Your task to perform on an android device: Clear the cart on newegg. Image 0: 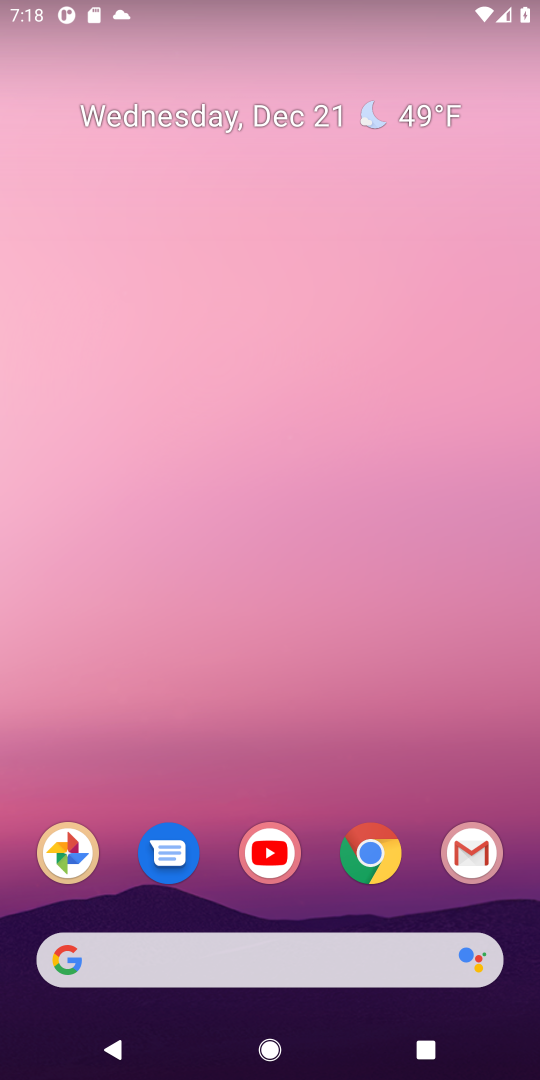
Step 0: click (372, 848)
Your task to perform on an android device: Clear the cart on newegg. Image 1: 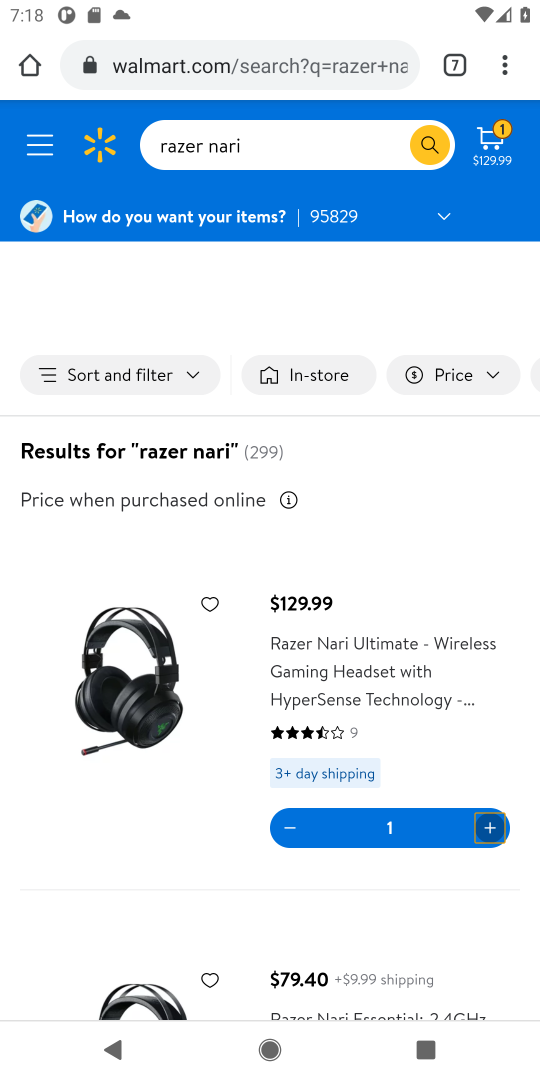
Step 1: click (460, 58)
Your task to perform on an android device: Clear the cart on newegg. Image 2: 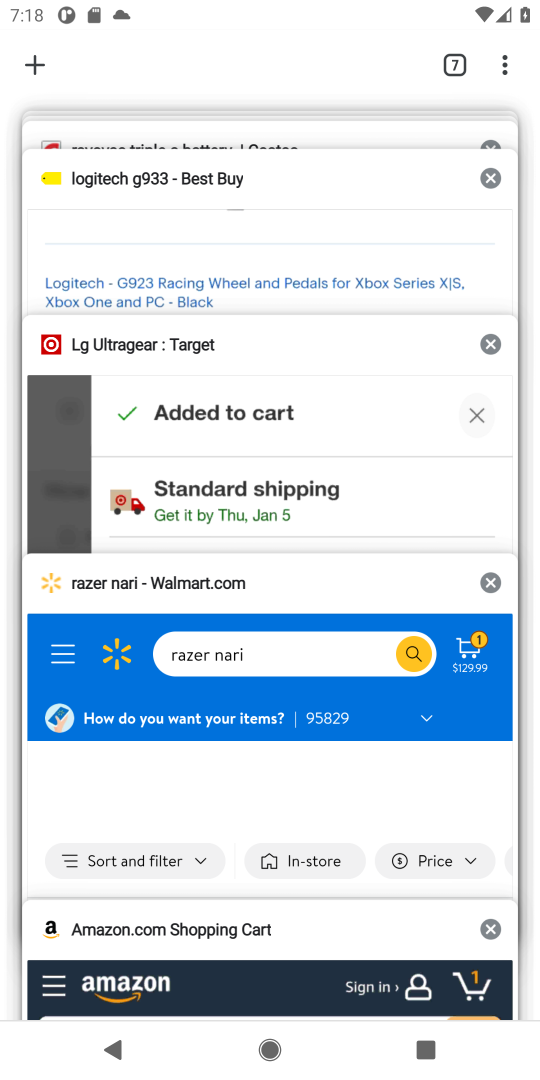
Step 2: drag from (267, 125) to (235, 463)
Your task to perform on an android device: Clear the cart on newegg. Image 3: 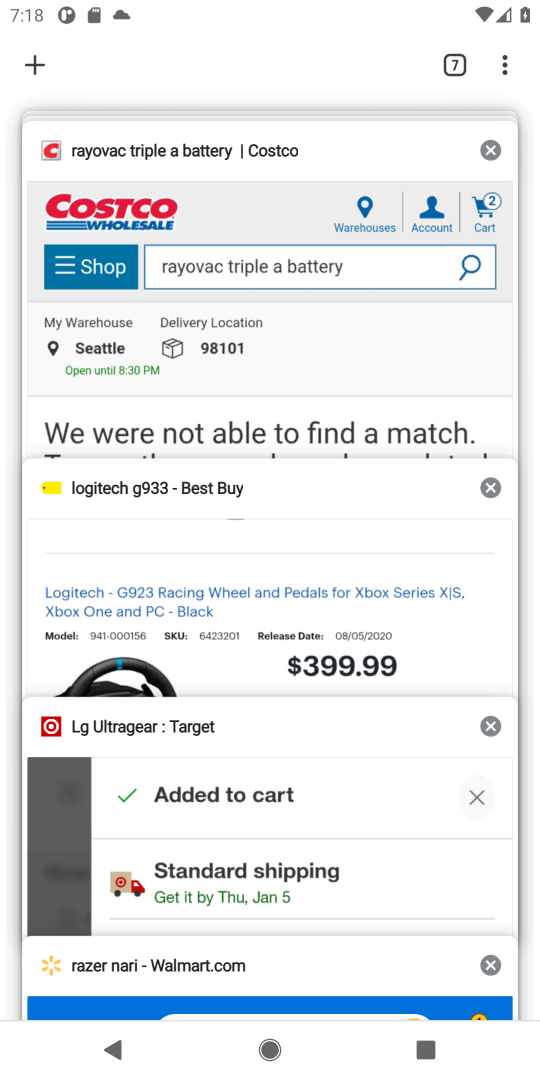
Step 3: drag from (284, 160) to (385, 632)
Your task to perform on an android device: Clear the cart on newegg. Image 4: 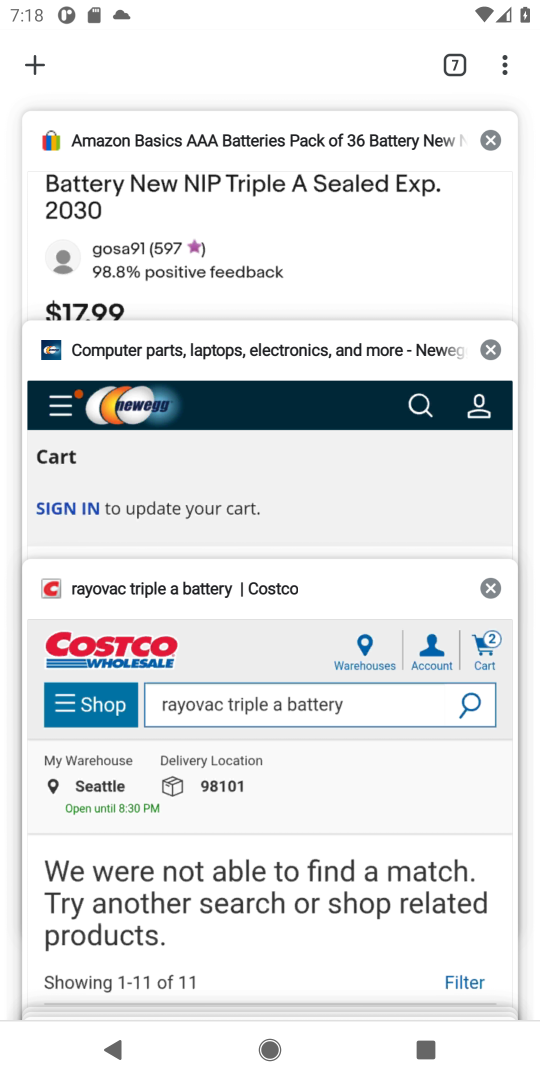
Step 4: click (373, 425)
Your task to perform on an android device: Clear the cart on newegg. Image 5: 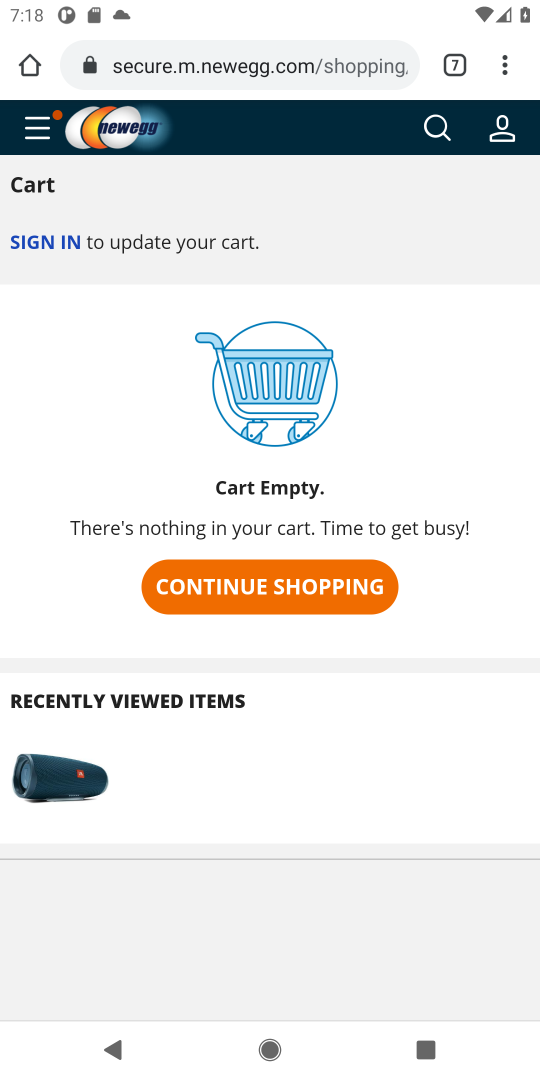
Step 5: task complete